Your task to perform on an android device: Open the map Image 0: 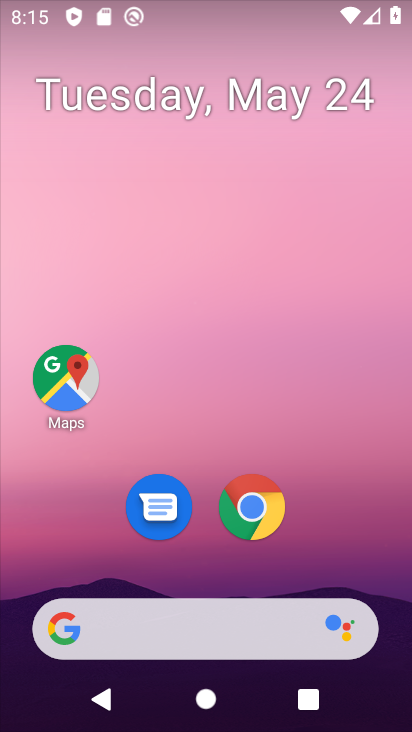
Step 0: drag from (244, 689) to (302, 109)
Your task to perform on an android device: Open the map Image 1: 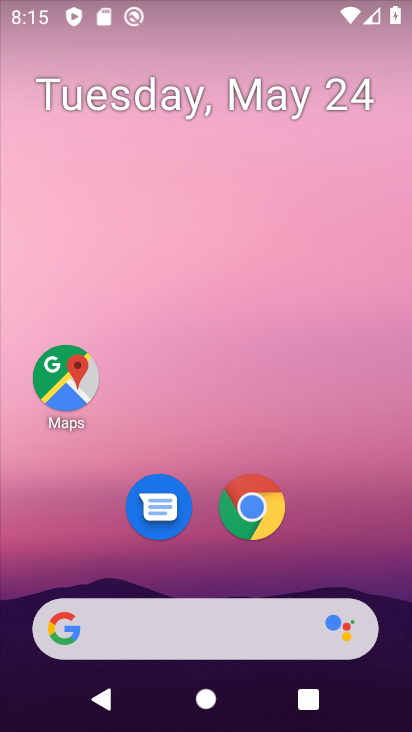
Step 1: drag from (230, 649) to (235, 8)
Your task to perform on an android device: Open the map Image 2: 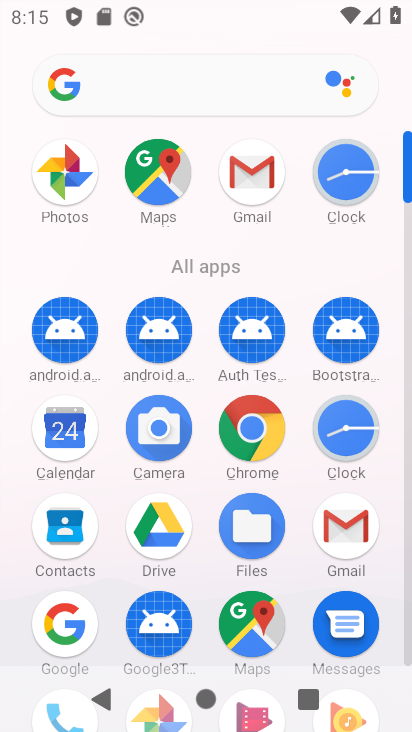
Step 2: drag from (251, 607) to (237, 49)
Your task to perform on an android device: Open the map Image 3: 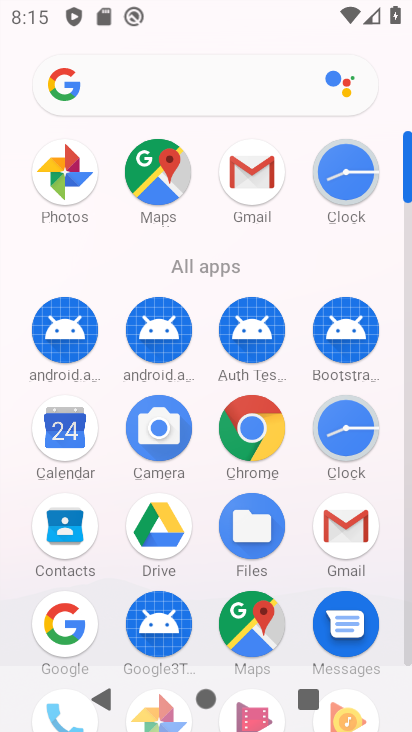
Step 3: click (262, 623)
Your task to perform on an android device: Open the map Image 4: 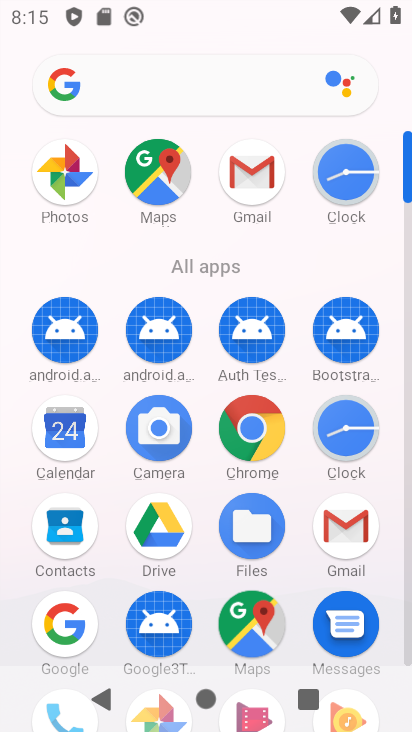
Step 4: click (259, 625)
Your task to perform on an android device: Open the map Image 5: 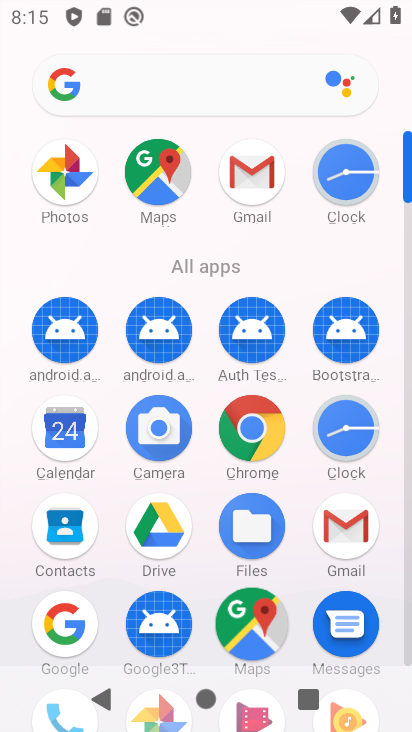
Step 5: click (260, 625)
Your task to perform on an android device: Open the map Image 6: 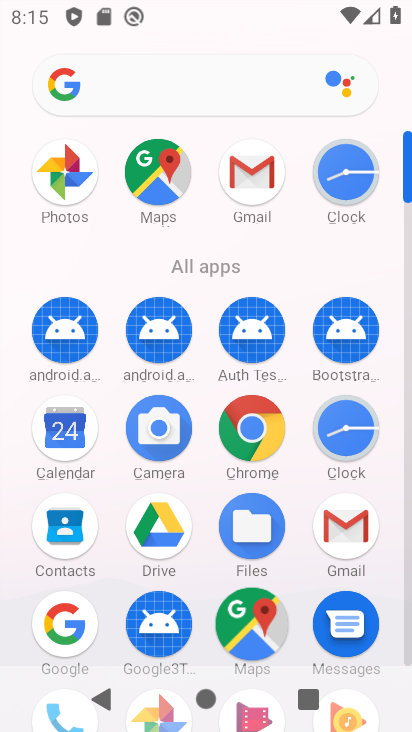
Step 6: click (266, 631)
Your task to perform on an android device: Open the map Image 7: 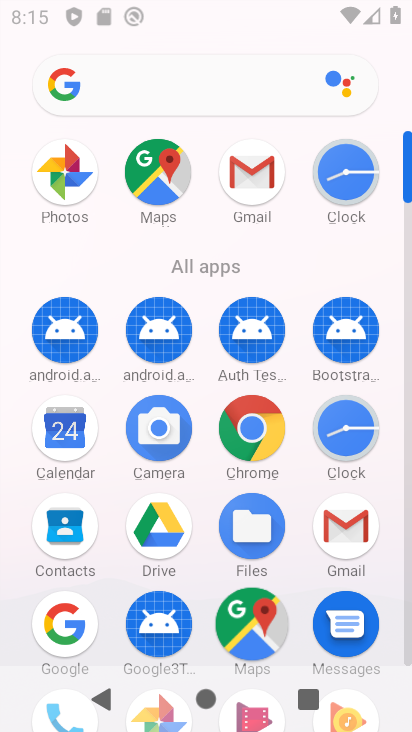
Step 7: click (265, 631)
Your task to perform on an android device: Open the map Image 8: 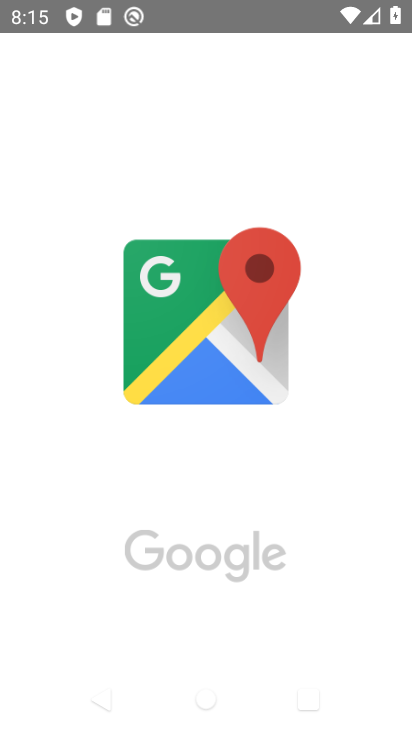
Step 8: click (260, 602)
Your task to perform on an android device: Open the map Image 9: 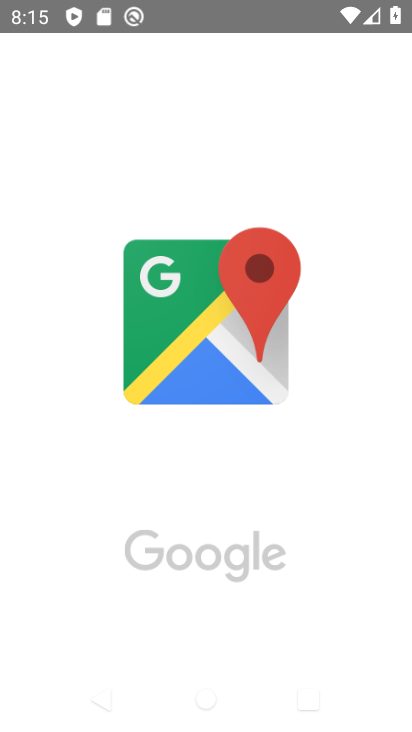
Step 9: click (259, 614)
Your task to perform on an android device: Open the map Image 10: 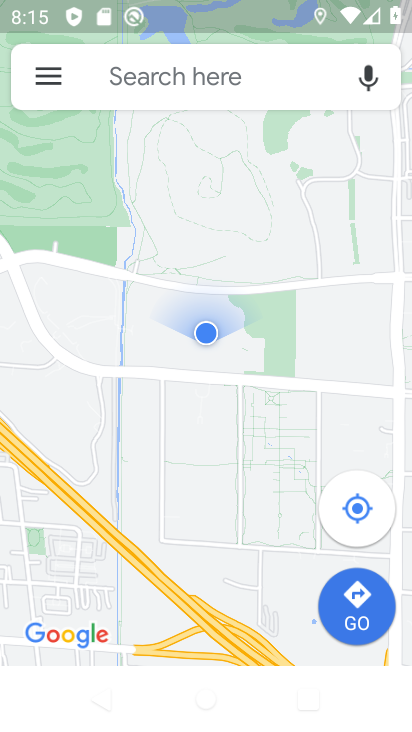
Step 10: press back button
Your task to perform on an android device: Open the map Image 11: 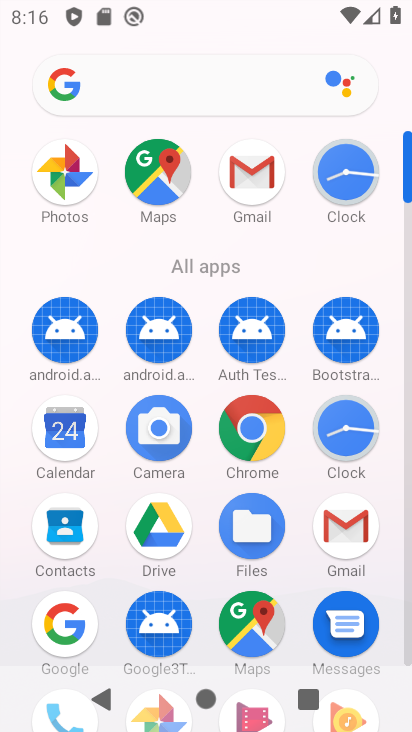
Step 11: click (168, 186)
Your task to perform on an android device: Open the map Image 12: 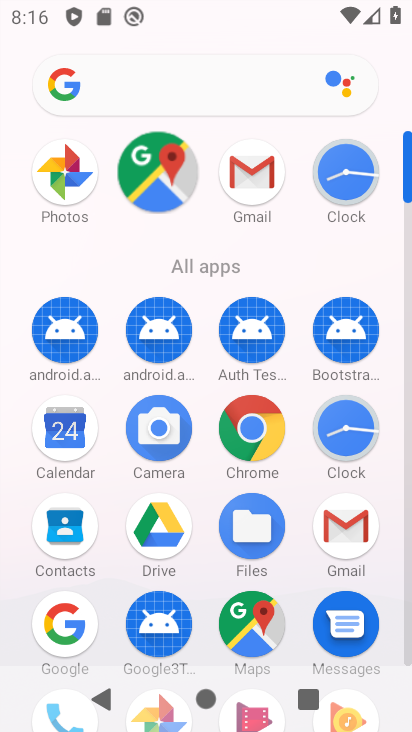
Step 12: click (167, 183)
Your task to perform on an android device: Open the map Image 13: 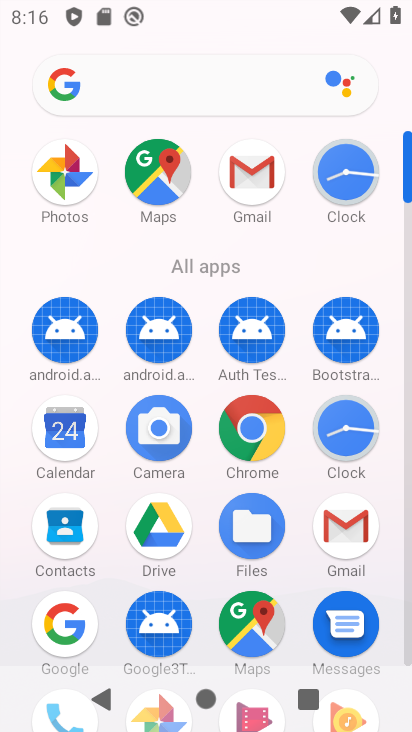
Step 13: click (150, 165)
Your task to perform on an android device: Open the map Image 14: 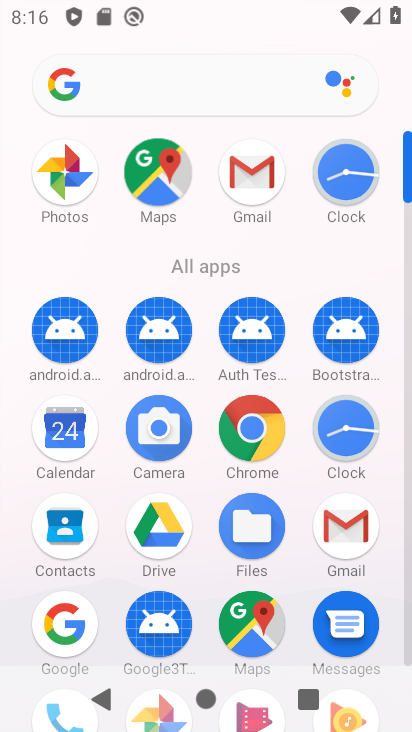
Step 14: click (150, 165)
Your task to perform on an android device: Open the map Image 15: 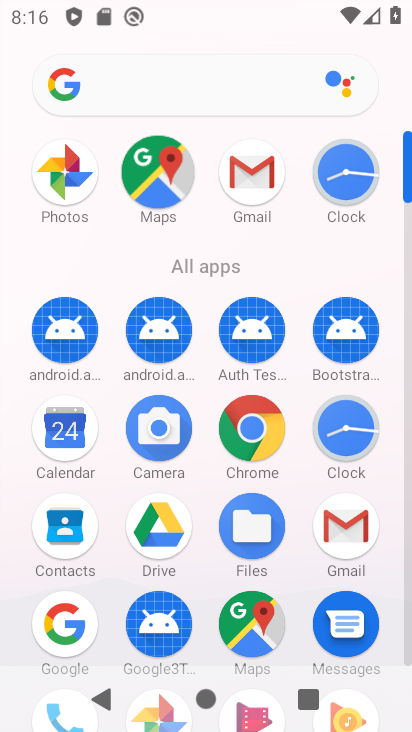
Step 15: click (148, 163)
Your task to perform on an android device: Open the map Image 16: 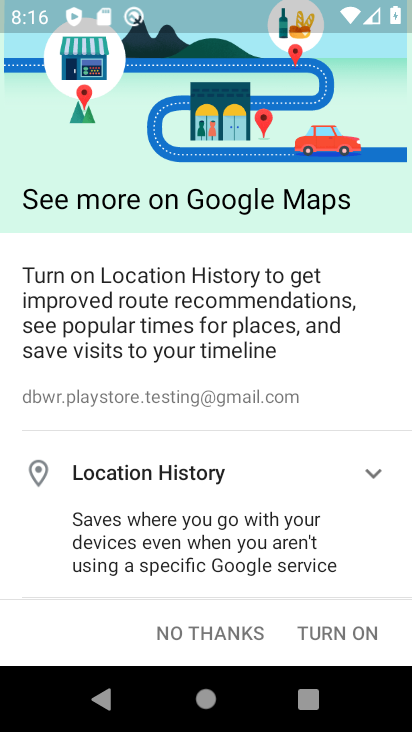
Step 16: click (214, 639)
Your task to perform on an android device: Open the map Image 17: 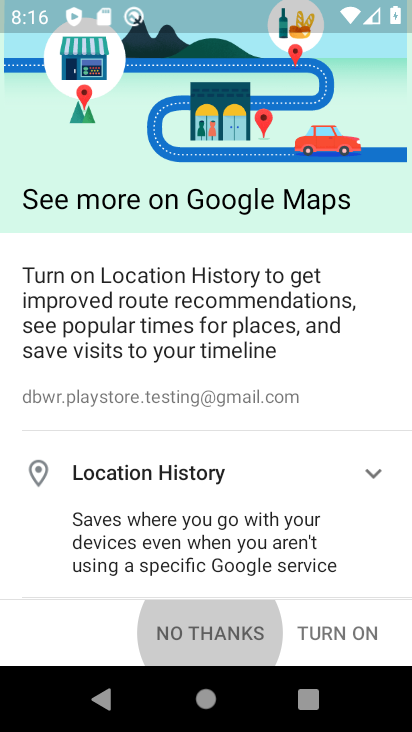
Step 17: click (219, 632)
Your task to perform on an android device: Open the map Image 18: 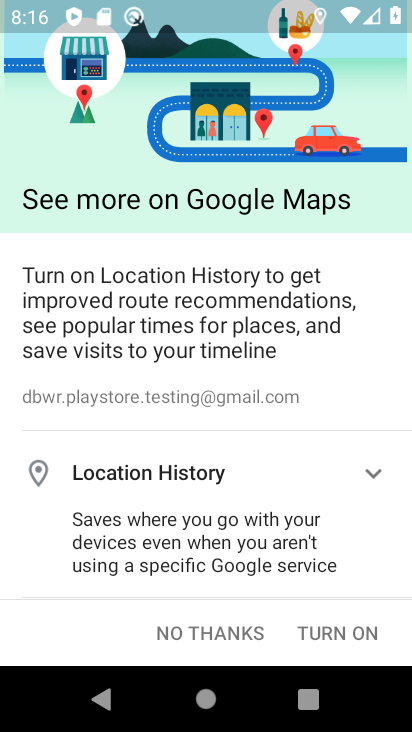
Step 18: click (216, 630)
Your task to perform on an android device: Open the map Image 19: 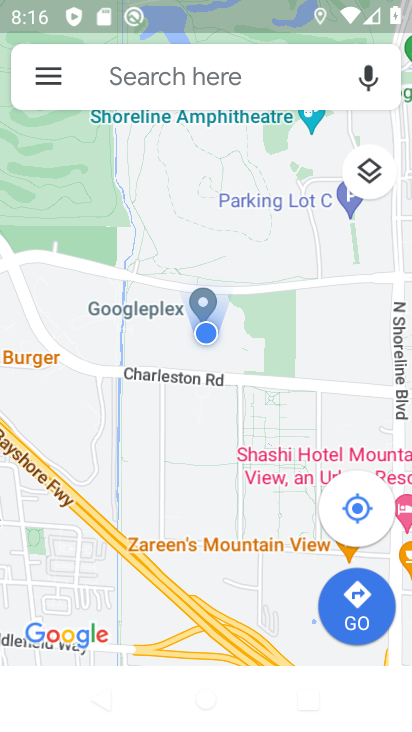
Step 19: click (213, 643)
Your task to perform on an android device: Open the map Image 20: 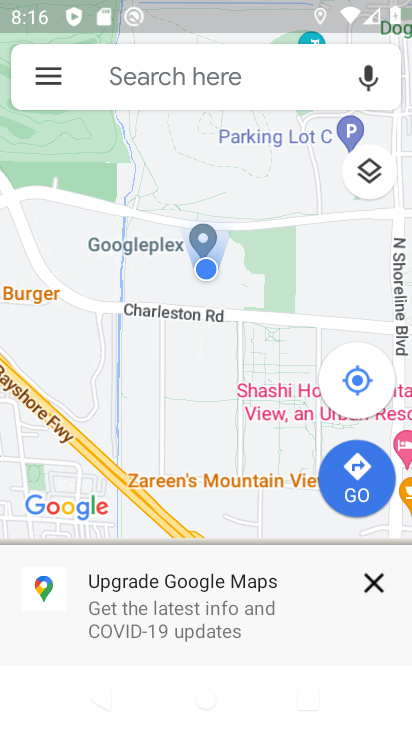
Step 20: task complete